Your task to perform on an android device: add a contact in the contacts app Image 0: 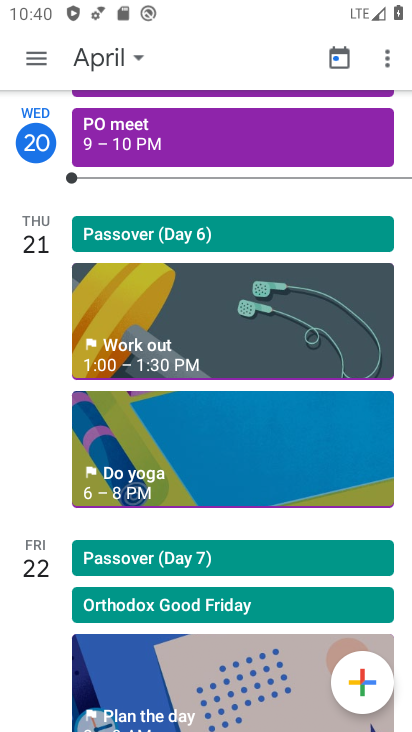
Step 0: press home button
Your task to perform on an android device: add a contact in the contacts app Image 1: 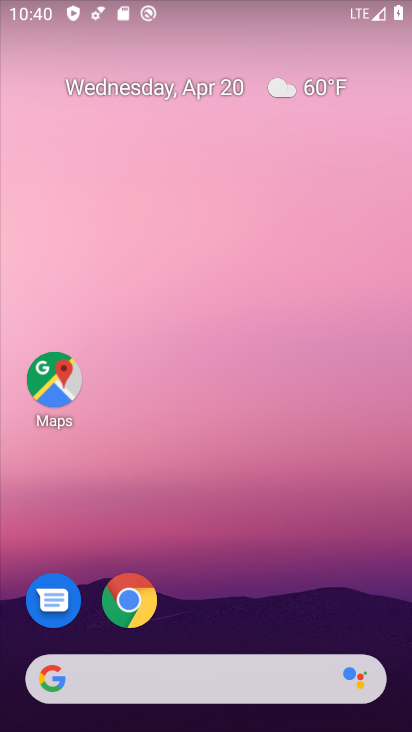
Step 1: drag from (334, 575) to (303, 71)
Your task to perform on an android device: add a contact in the contacts app Image 2: 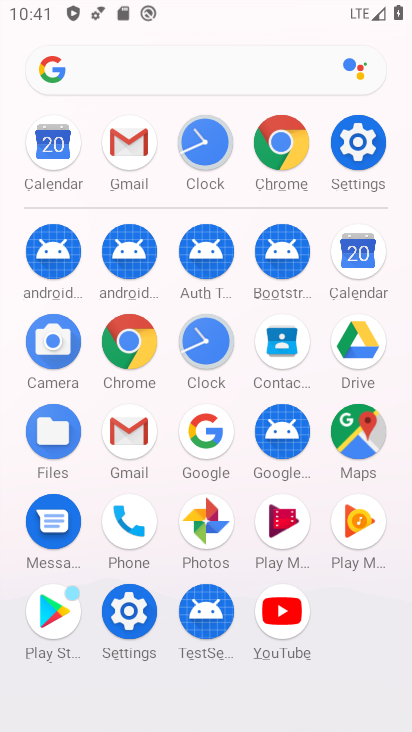
Step 2: click (295, 346)
Your task to perform on an android device: add a contact in the contacts app Image 3: 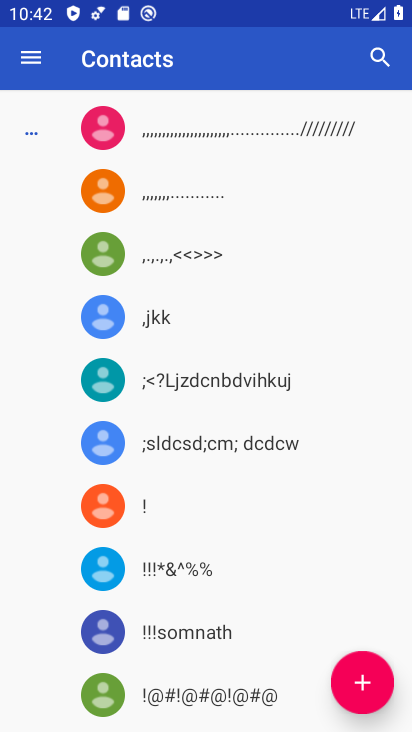
Step 3: click (365, 683)
Your task to perform on an android device: add a contact in the contacts app Image 4: 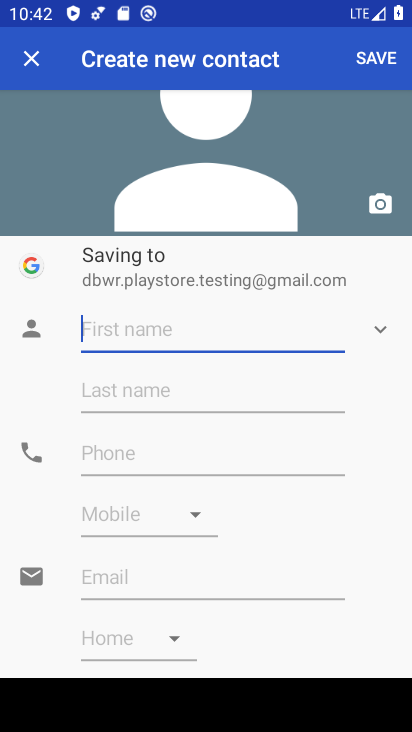
Step 4: click (244, 342)
Your task to perform on an android device: add a contact in the contacts app Image 5: 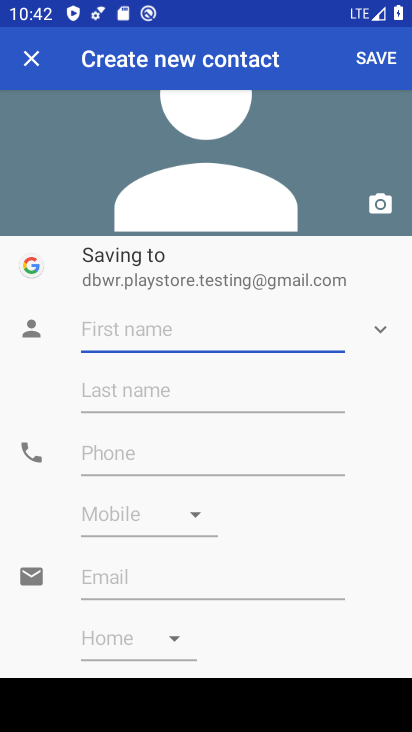
Step 5: type "hhkjg"
Your task to perform on an android device: add a contact in the contacts app Image 6: 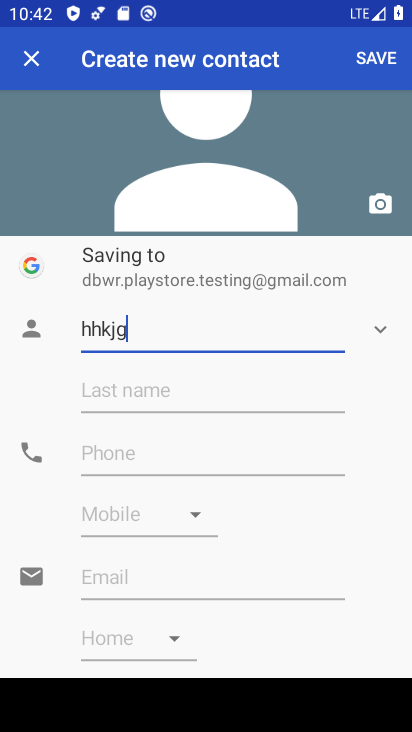
Step 6: type ""
Your task to perform on an android device: add a contact in the contacts app Image 7: 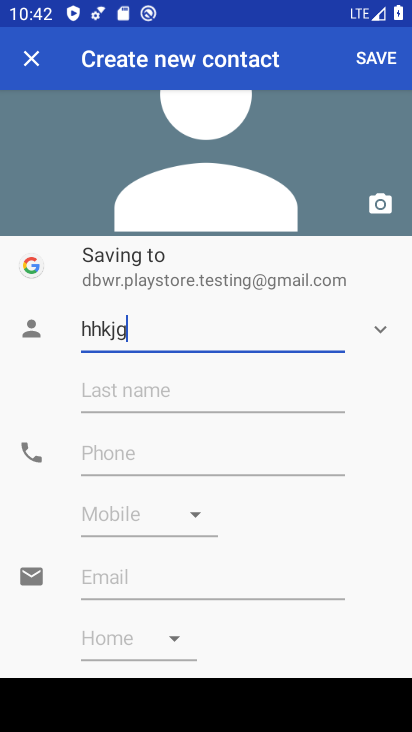
Step 7: click (372, 58)
Your task to perform on an android device: add a contact in the contacts app Image 8: 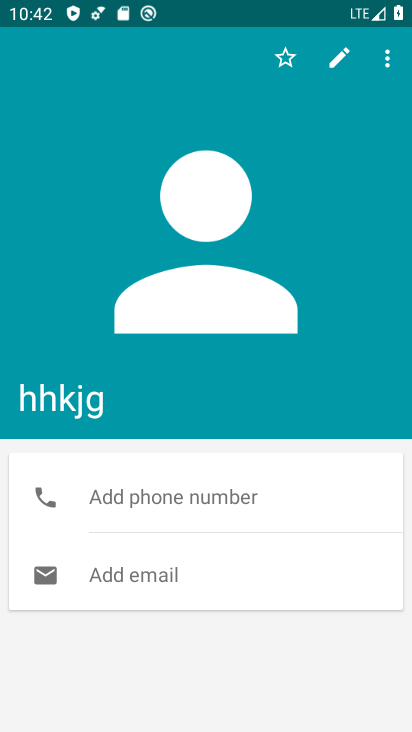
Step 8: task complete